Your task to perform on an android device: open chrome privacy settings Image 0: 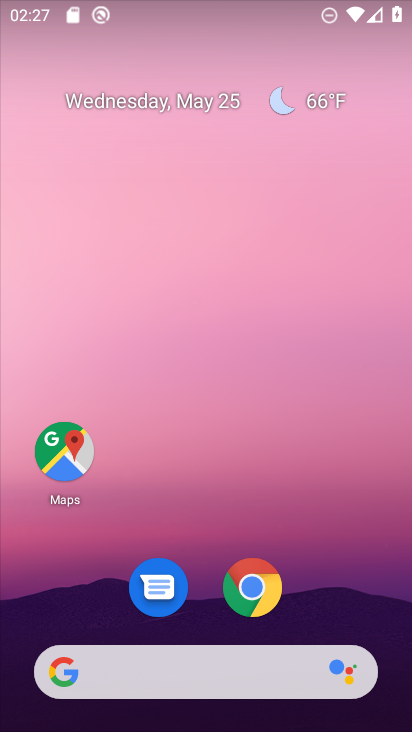
Step 0: drag from (346, 602) to (355, 220)
Your task to perform on an android device: open chrome privacy settings Image 1: 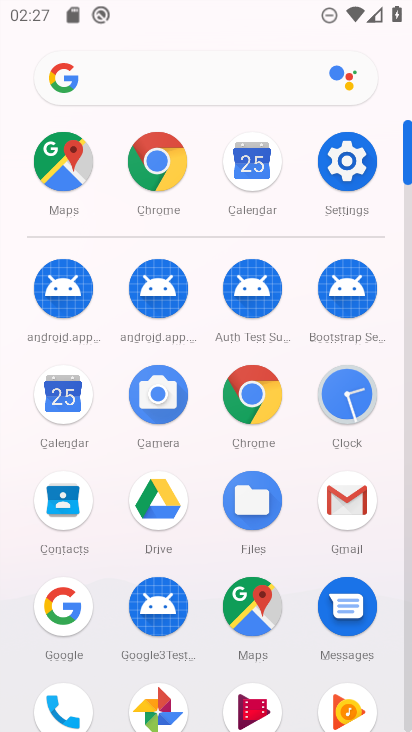
Step 1: click (347, 162)
Your task to perform on an android device: open chrome privacy settings Image 2: 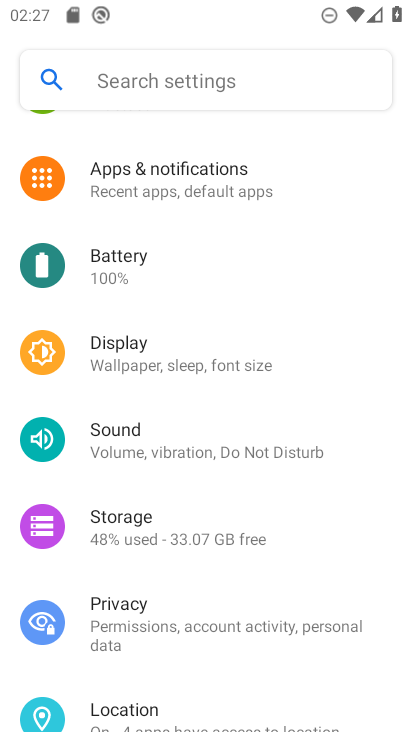
Step 2: drag from (354, 563) to (355, 445)
Your task to perform on an android device: open chrome privacy settings Image 3: 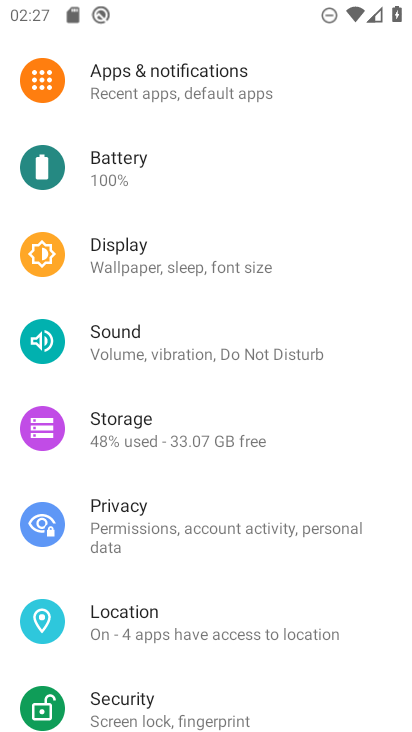
Step 3: drag from (354, 610) to (356, 539)
Your task to perform on an android device: open chrome privacy settings Image 4: 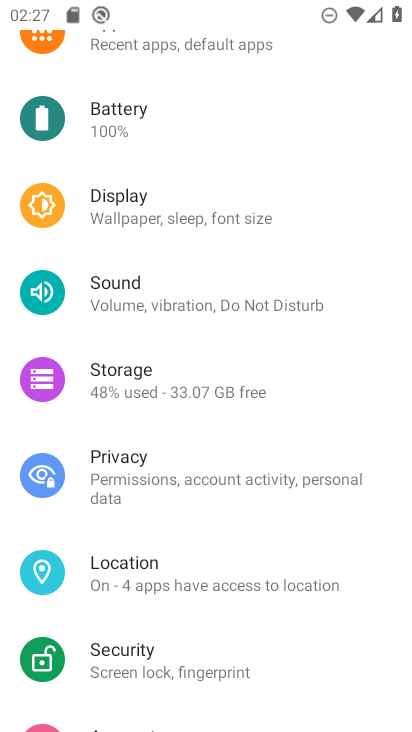
Step 4: drag from (363, 649) to (367, 504)
Your task to perform on an android device: open chrome privacy settings Image 5: 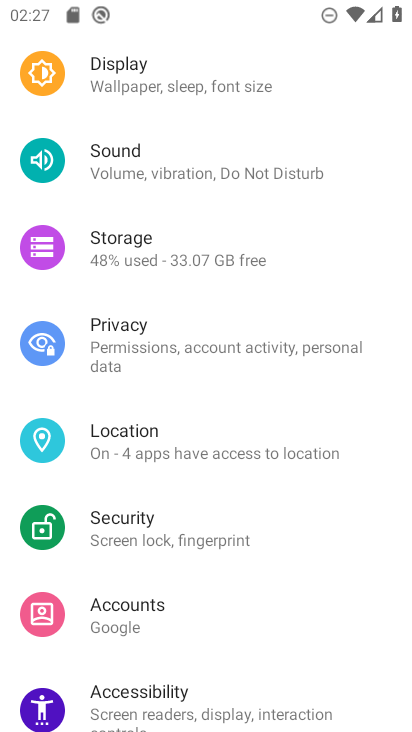
Step 5: drag from (361, 626) to (361, 488)
Your task to perform on an android device: open chrome privacy settings Image 6: 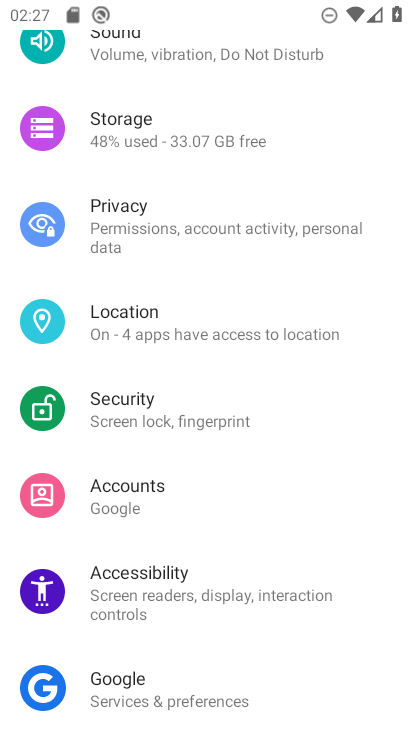
Step 6: drag from (365, 601) to (367, 428)
Your task to perform on an android device: open chrome privacy settings Image 7: 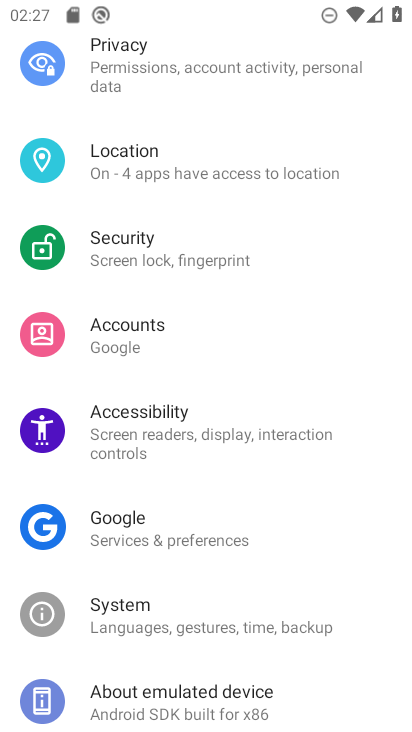
Step 7: drag from (367, 608) to (370, 463)
Your task to perform on an android device: open chrome privacy settings Image 8: 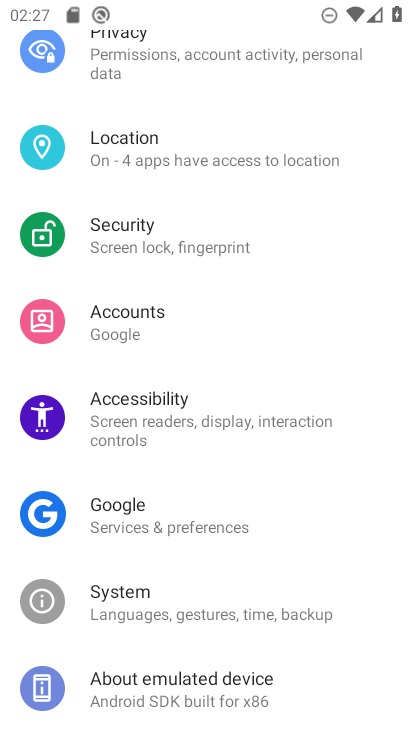
Step 8: drag from (360, 392) to (361, 536)
Your task to perform on an android device: open chrome privacy settings Image 9: 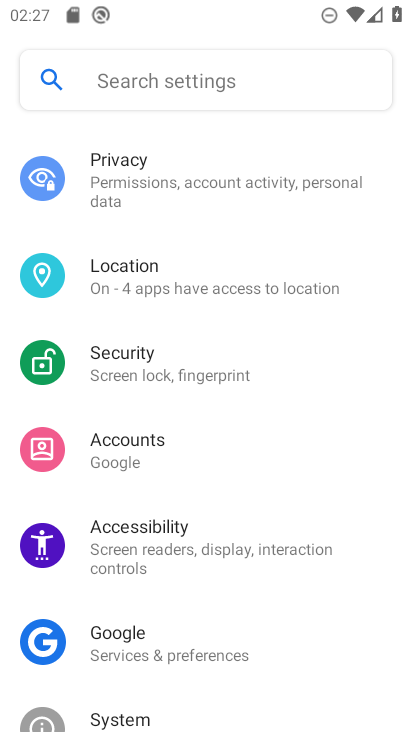
Step 9: drag from (345, 402) to (346, 472)
Your task to perform on an android device: open chrome privacy settings Image 10: 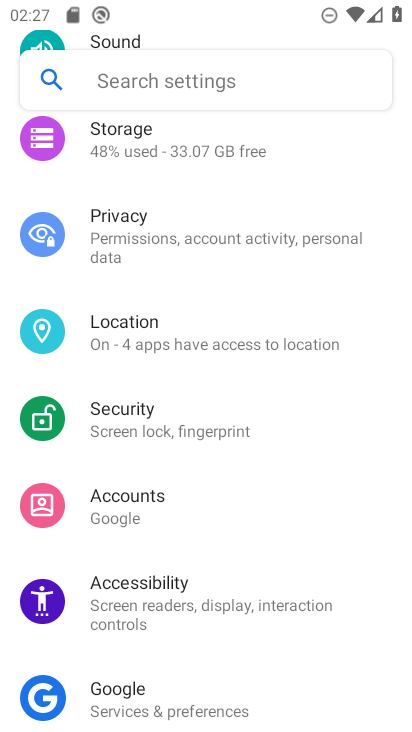
Step 10: drag from (350, 369) to (360, 474)
Your task to perform on an android device: open chrome privacy settings Image 11: 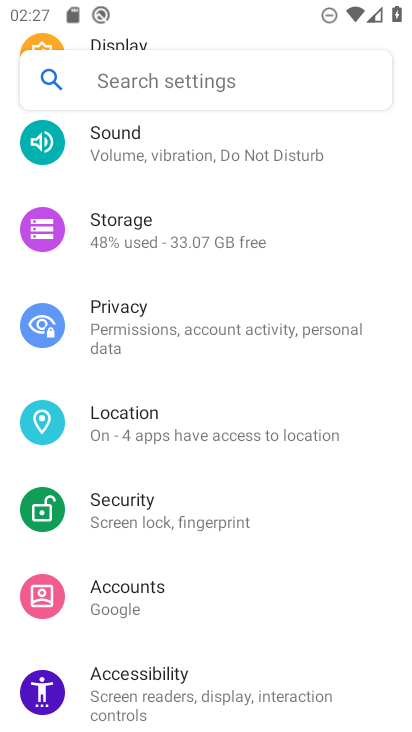
Step 11: drag from (363, 392) to (372, 498)
Your task to perform on an android device: open chrome privacy settings Image 12: 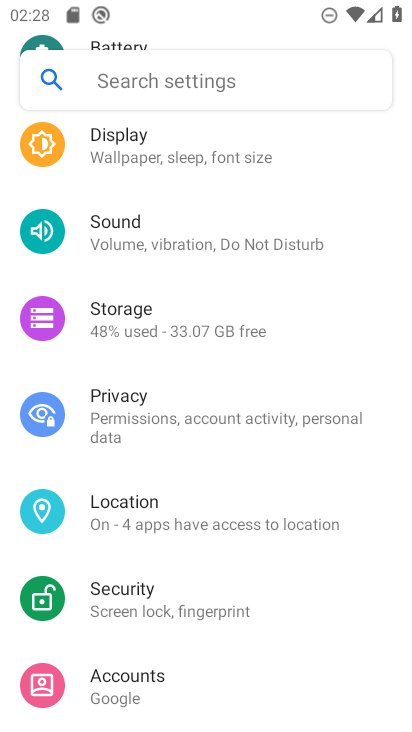
Step 12: click (186, 424)
Your task to perform on an android device: open chrome privacy settings Image 13: 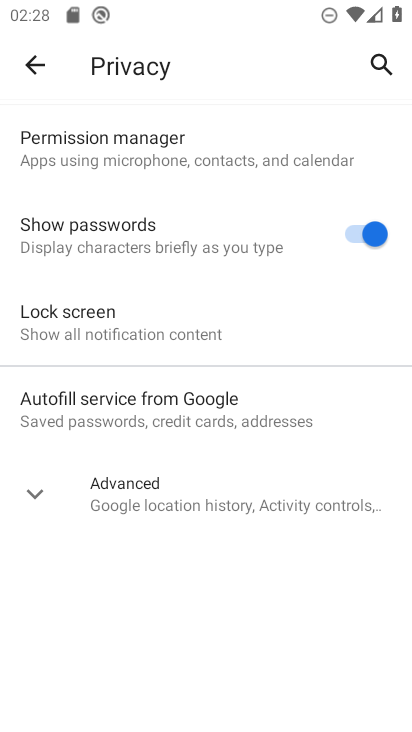
Step 13: task complete